Your task to perform on an android device: Go to network settings Image 0: 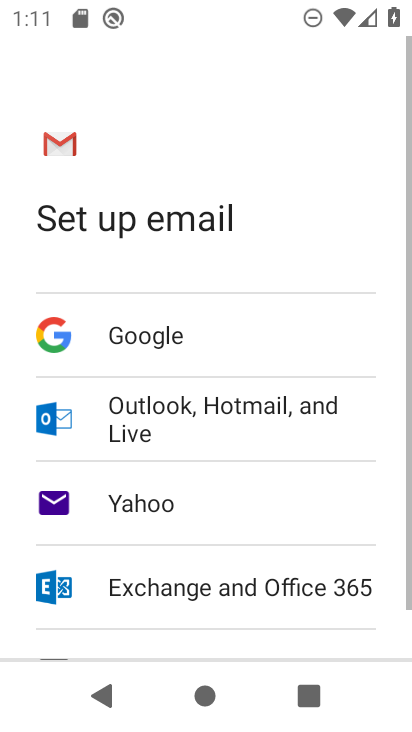
Step 0: press home button
Your task to perform on an android device: Go to network settings Image 1: 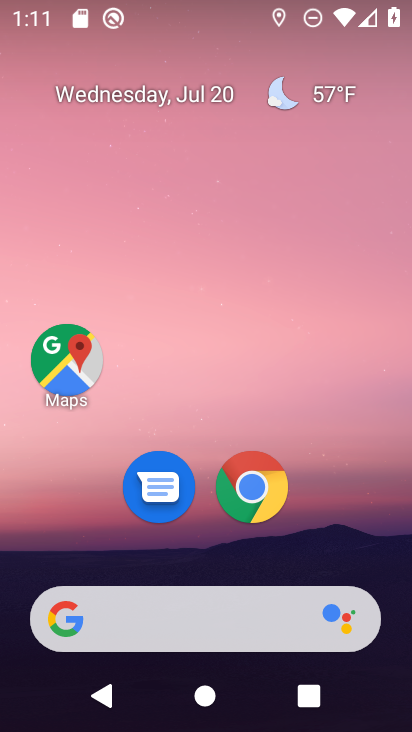
Step 1: drag from (313, 516) to (320, 196)
Your task to perform on an android device: Go to network settings Image 2: 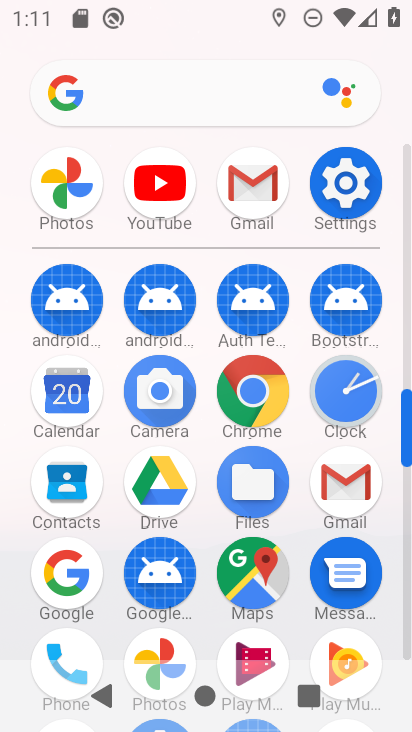
Step 2: click (341, 200)
Your task to perform on an android device: Go to network settings Image 3: 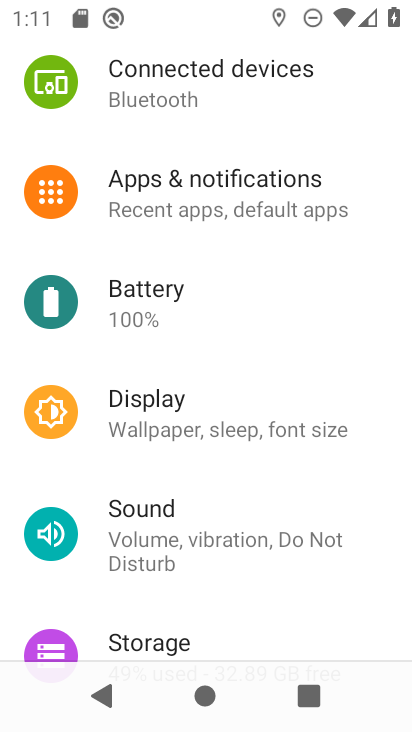
Step 3: drag from (368, 272) to (356, 355)
Your task to perform on an android device: Go to network settings Image 4: 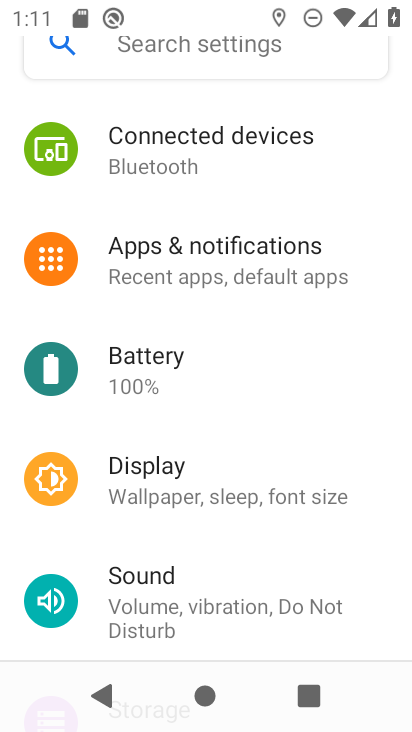
Step 4: drag from (366, 251) to (363, 365)
Your task to perform on an android device: Go to network settings Image 5: 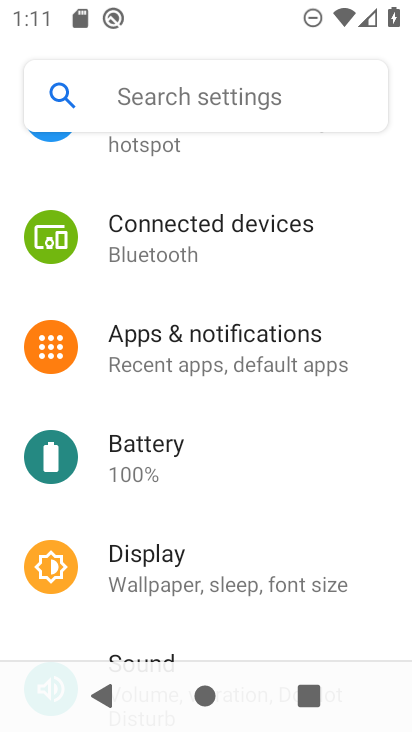
Step 5: drag from (362, 291) to (362, 356)
Your task to perform on an android device: Go to network settings Image 6: 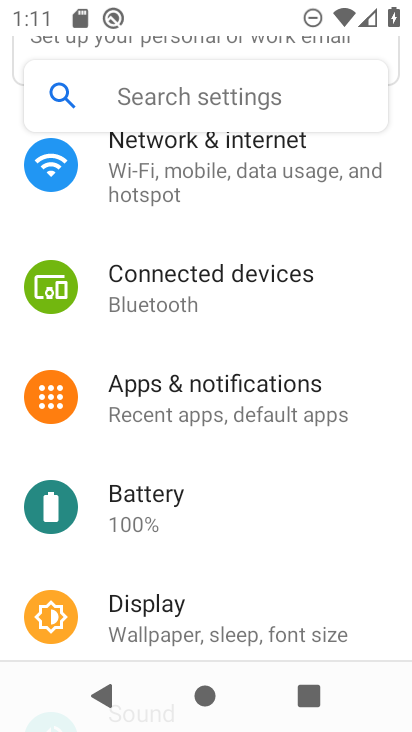
Step 6: drag from (365, 282) to (367, 364)
Your task to perform on an android device: Go to network settings Image 7: 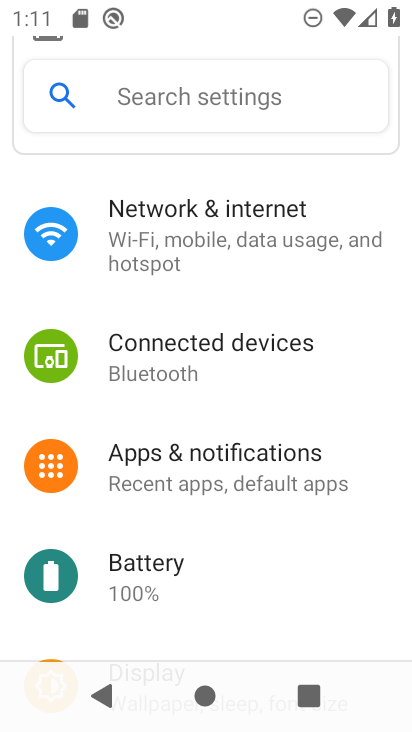
Step 7: drag from (347, 282) to (350, 391)
Your task to perform on an android device: Go to network settings Image 8: 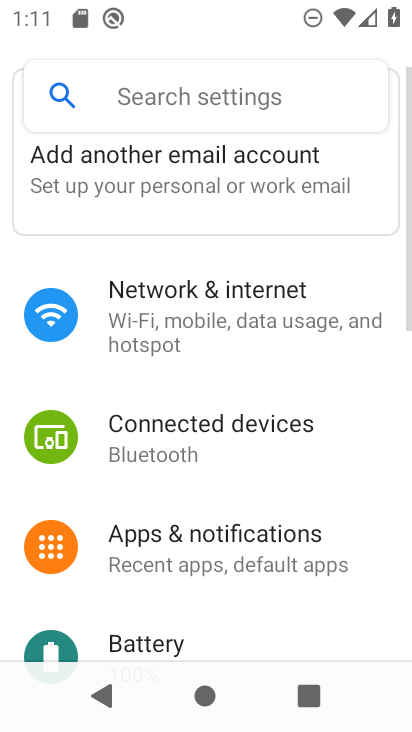
Step 8: click (336, 301)
Your task to perform on an android device: Go to network settings Image 9: 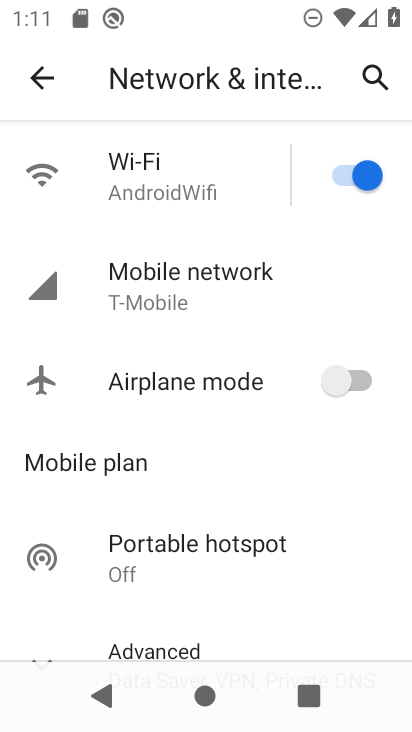
Step 9: task complete